Your task to perform on an android device: delete browsing data in the chrome app Image 0: 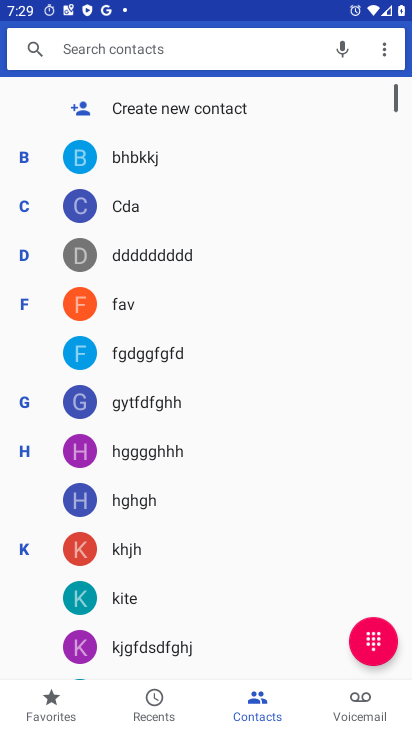
Step 0: press home button
Your task to perform on an android device: delete browsing data in the chrome app Image 1: 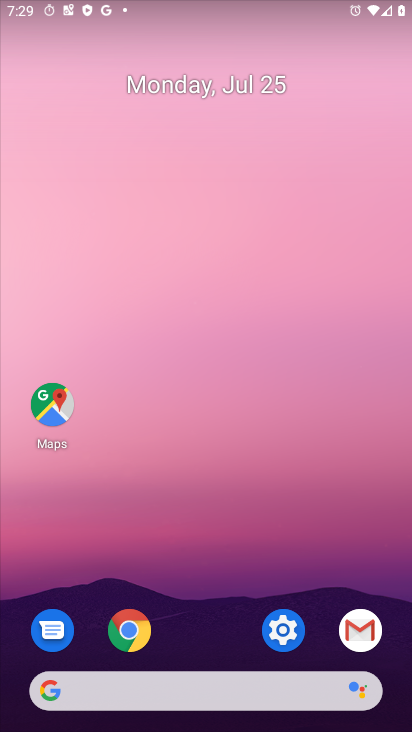
Step 1: click (125, 627)
Your task to perform on an android device: delete browsing data in the chrome app Image 2: 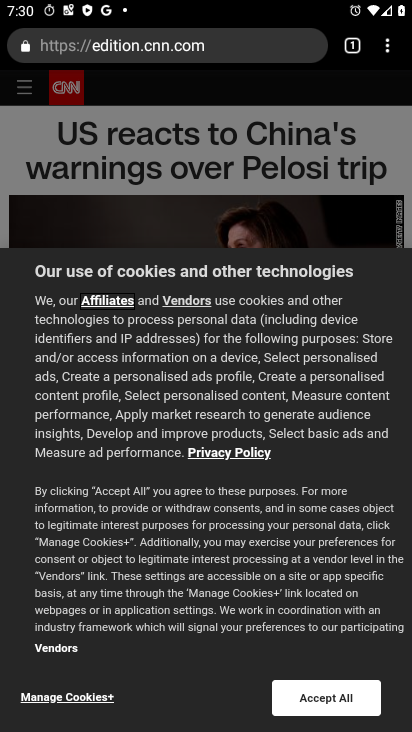
Step 2: click (386, 48)
Your task to perform on an android device: delete browsing data in the chrome app Image 3: 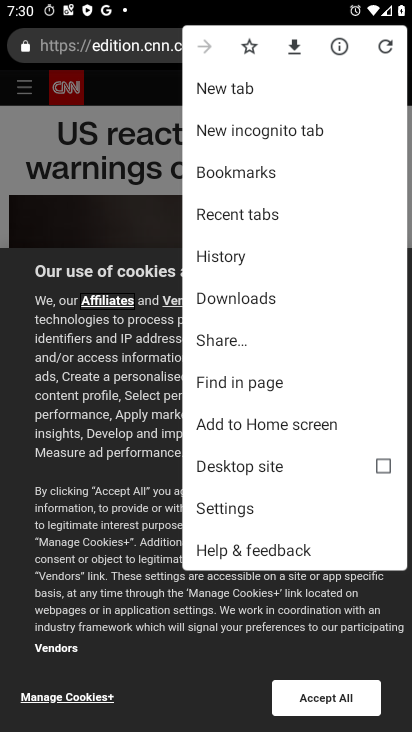
Step 3: click (219, 510)
Your task to perform on an android device: delete browsing data in the chrome app Image 4: 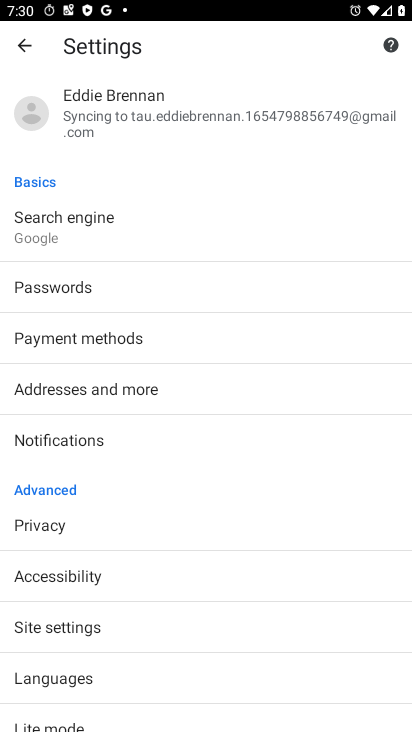
Step 4: click (26, 525)
Your task to perform on an android device: delete browsing data in the chrome app Image 5: 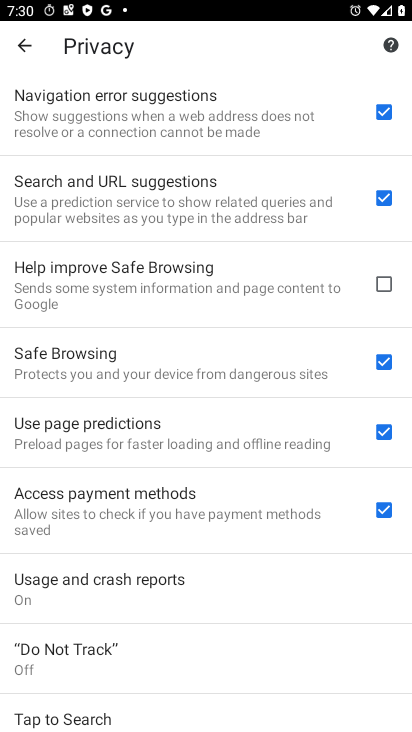
Step 5: drag from (129, 658) to (167, 457)
Your task to perform on an android device: delete browsing data in the chrome app Image 6: 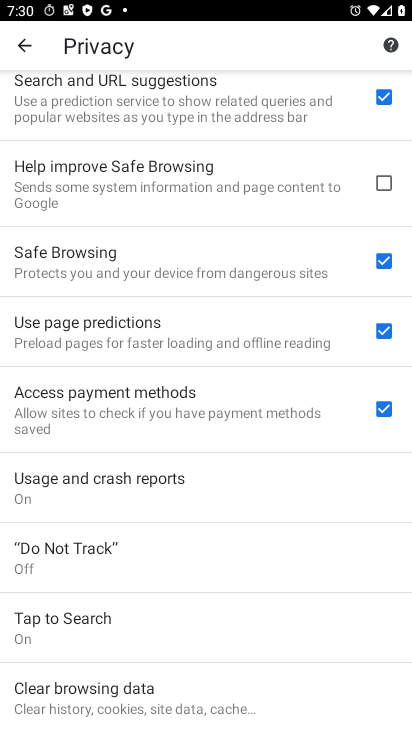
Step 6: click (91, 678)
Your task to perform on an android device: delete browsing data in the chrome app Image 7: 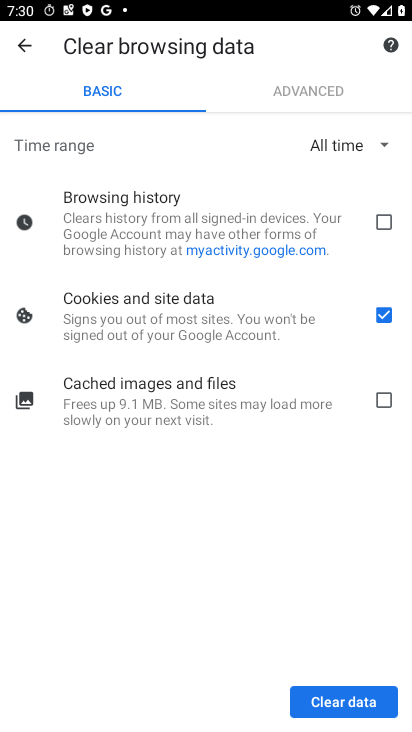
Step 7: click (317, 704)
Your task to perform on an android device: delete browsing data in the chrome app Image 8: 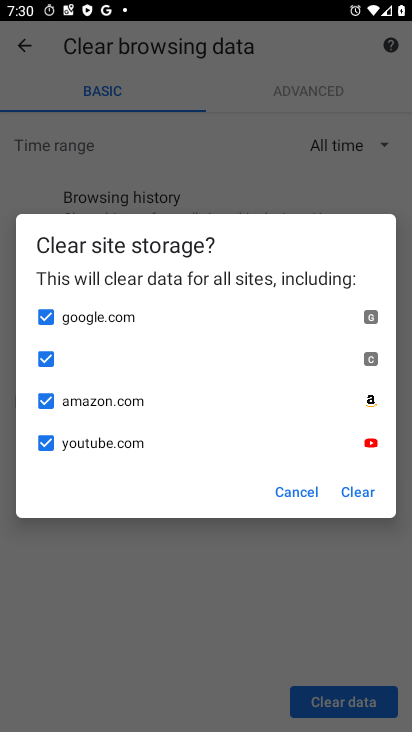
Step 8: click (356, 491)
Your task to perform on an android device: delete browsing data in the chrome app Image 9: 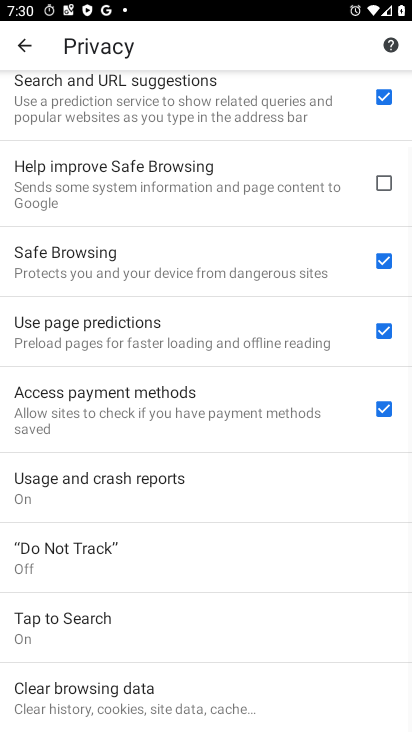
Step 9: task complete